Your task to perform on an android device: Find a good burger place on Maps Image 0: 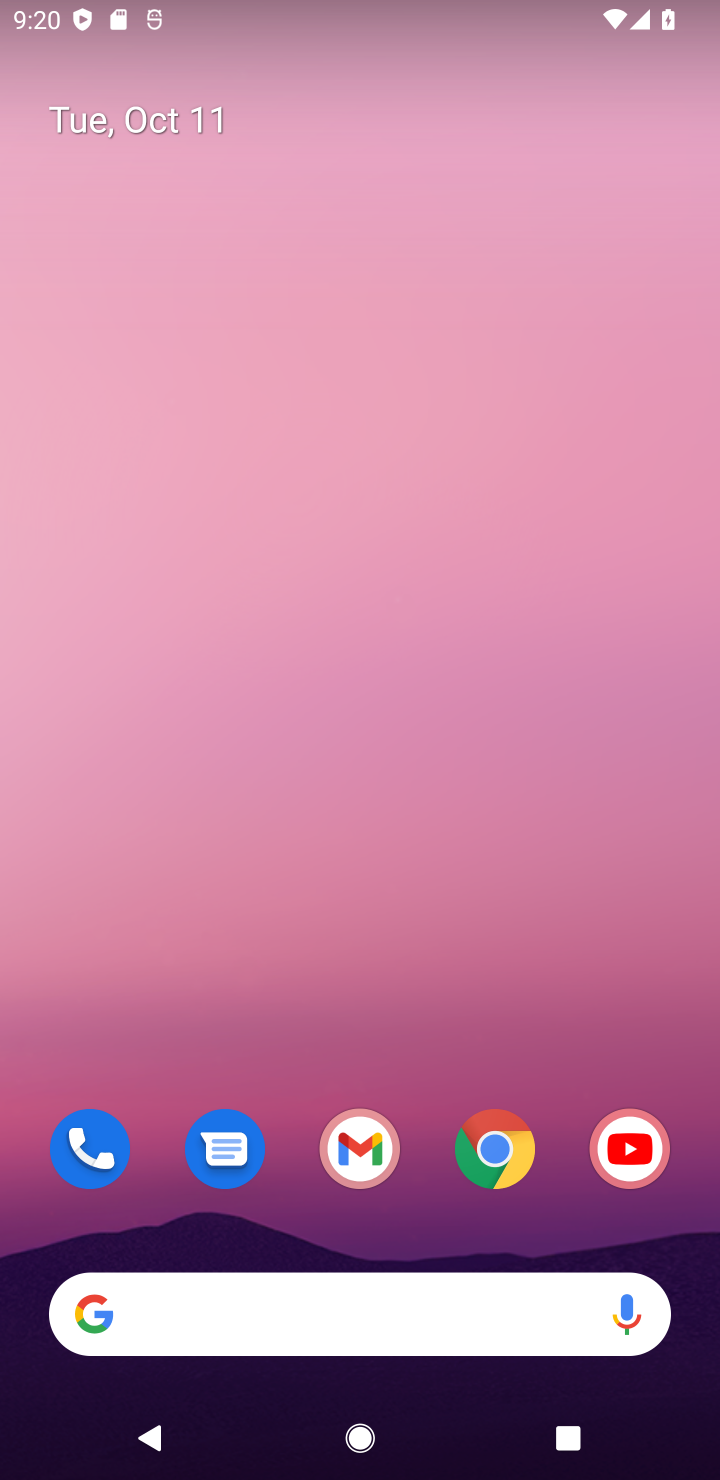
Step 0: drag from (348, 1078) to (392, 27)
Your task to perform on an android device: Find a good burger place on Maps Image 1: 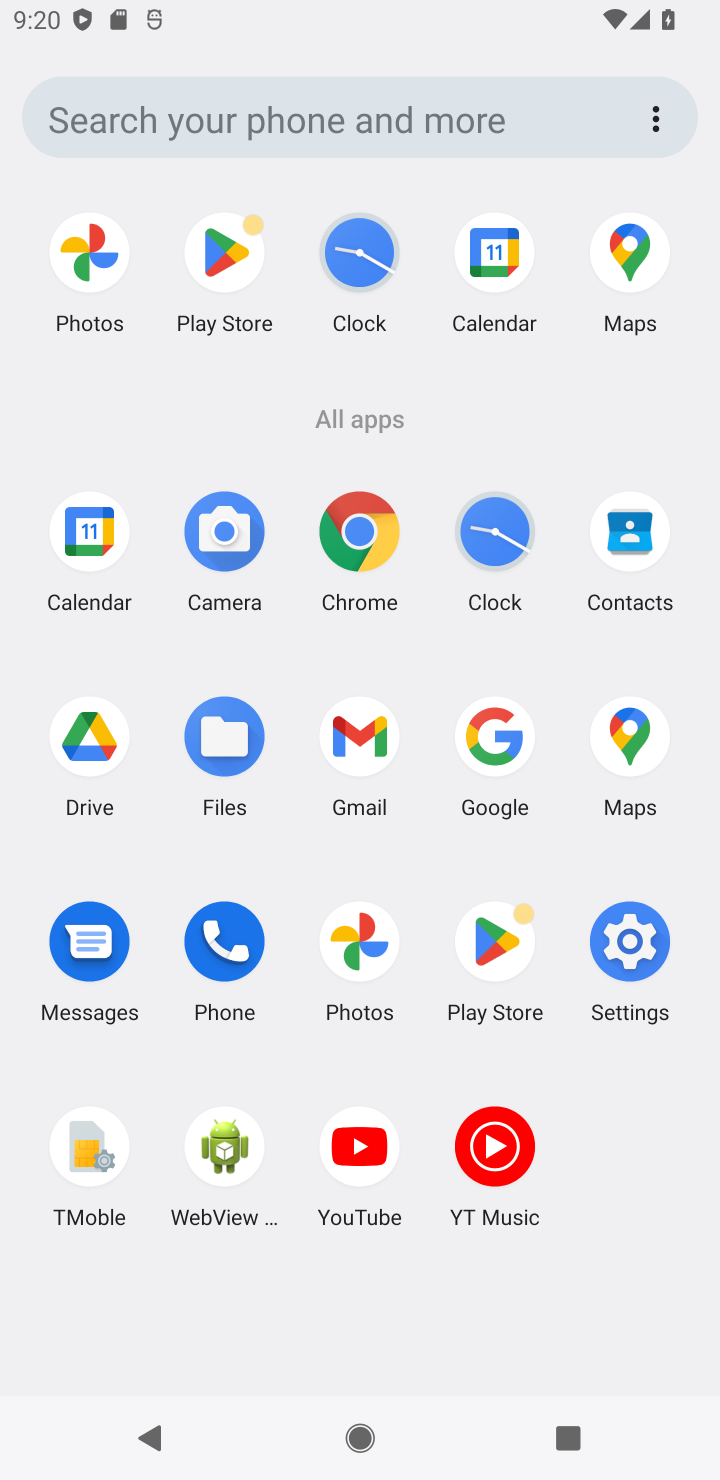
Step 1: click (639, 743)
Your task to perform on an android device: Find a good burger place on Maps Image 2: 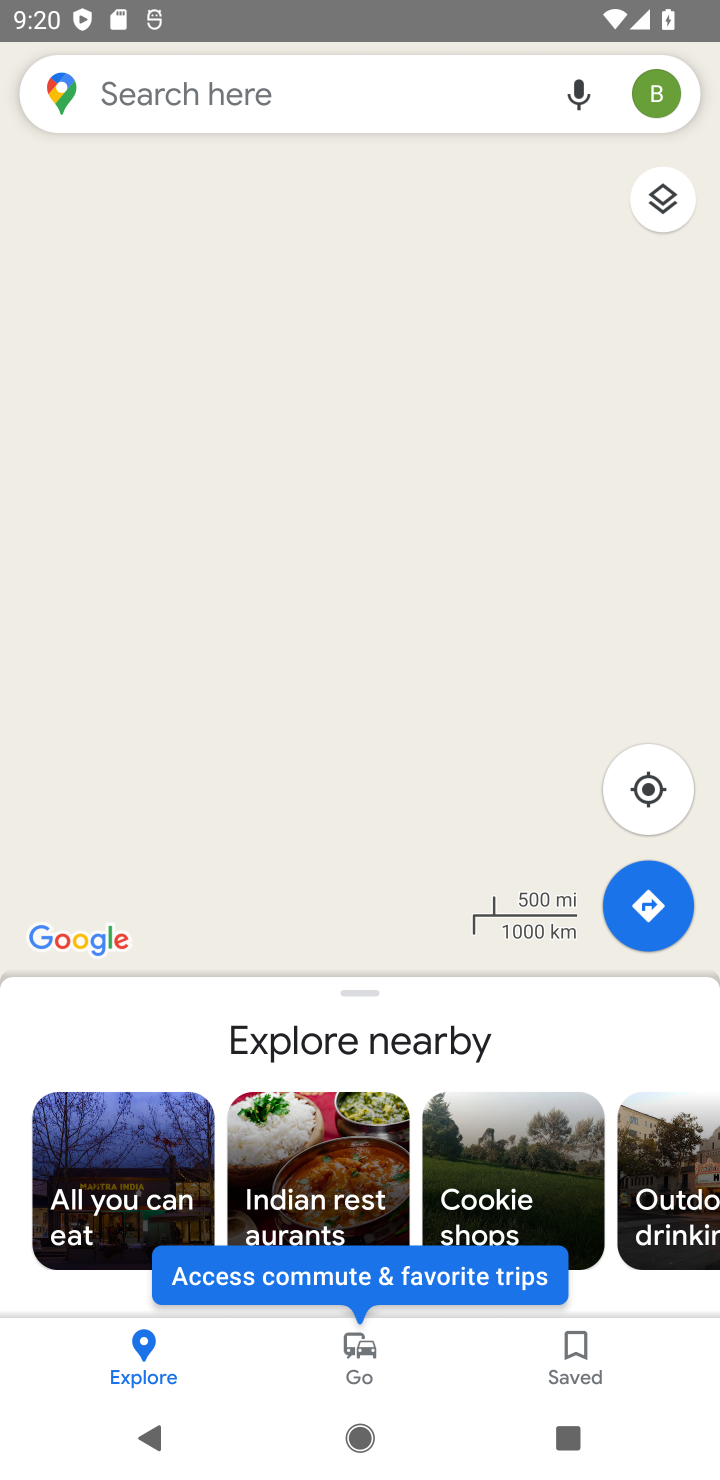
Step 2: click (384, 87)
Your task to perform on an android device: Find a good burger place on Maps Image 3: 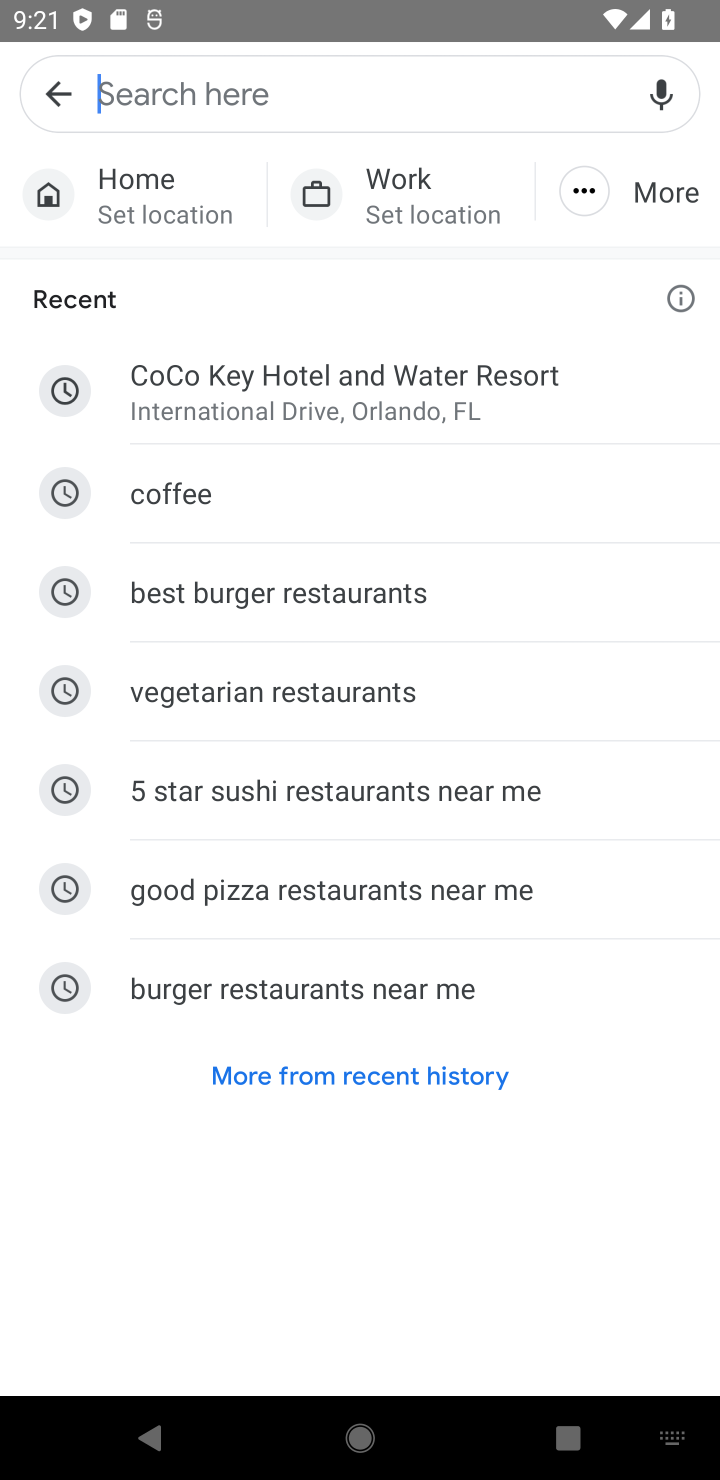
Step 3: type "Find a good burger place"
Your task to perform on an android device: Find a good burger place on Maps Image 4: 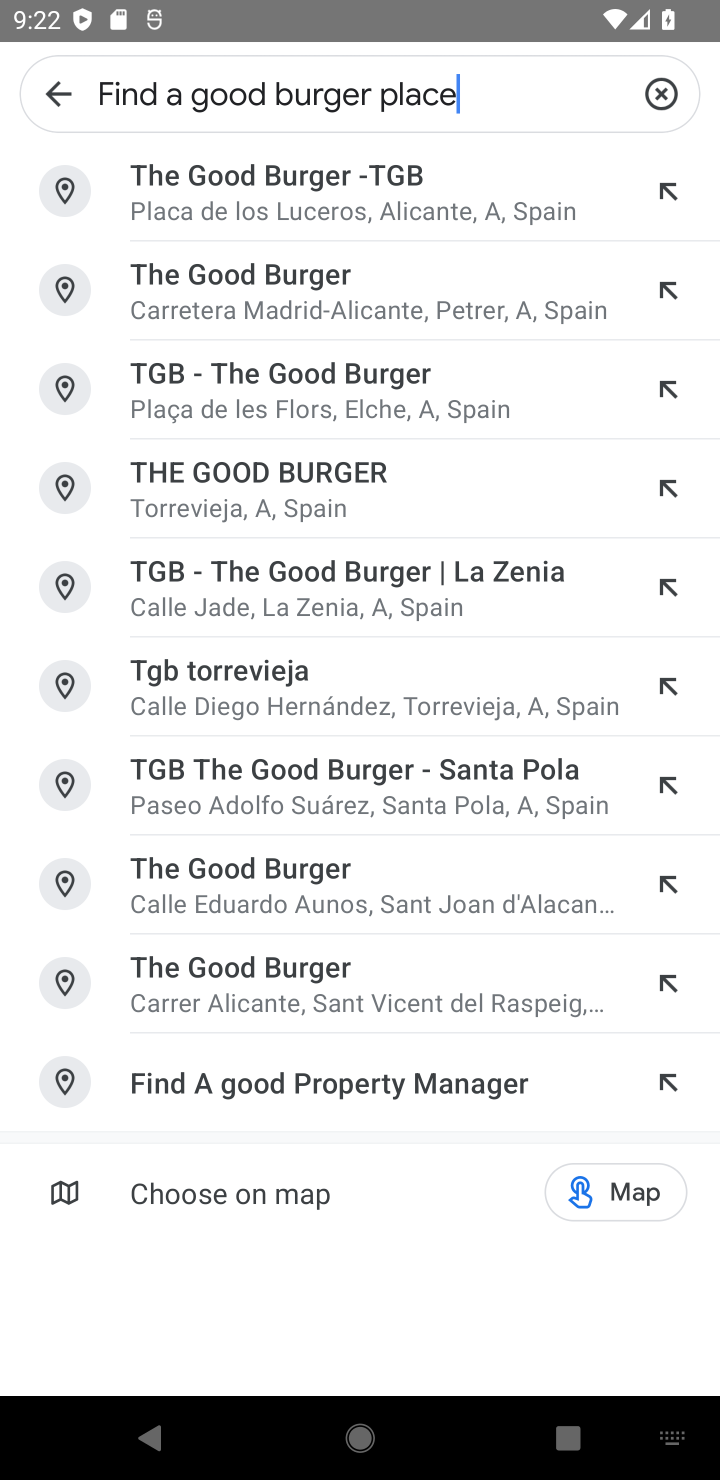
Step 4: click (286, 305)
Your task to perform on an android device: Find a good burger place on Maps Image 5: 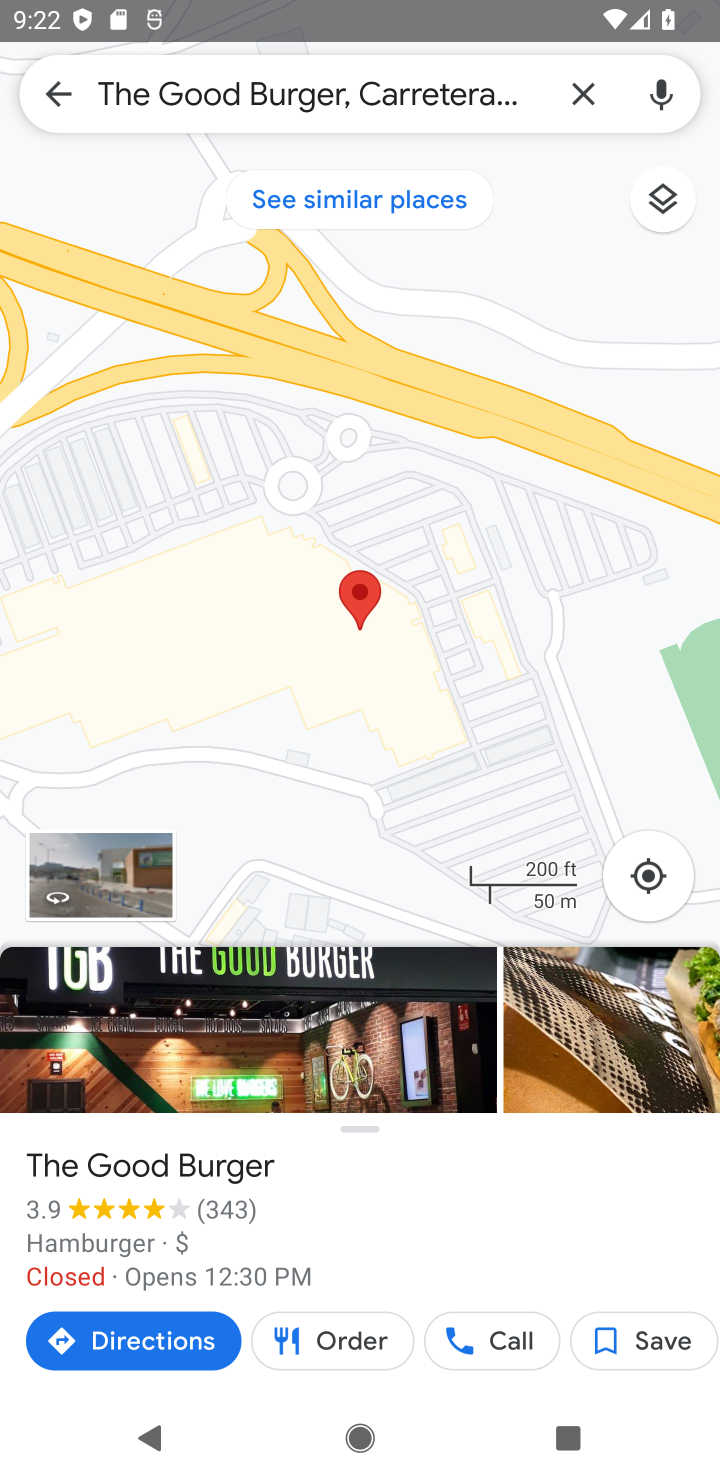
Step 5: task complete